Your task to perform on an android device: open chrome privacy settings Image 0: 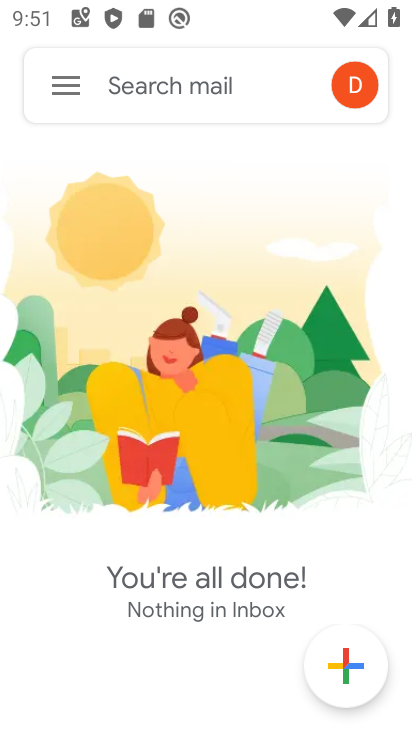
Step 0: press home button
Your task to perform on an android device: open chrome privacy settings Image 1: 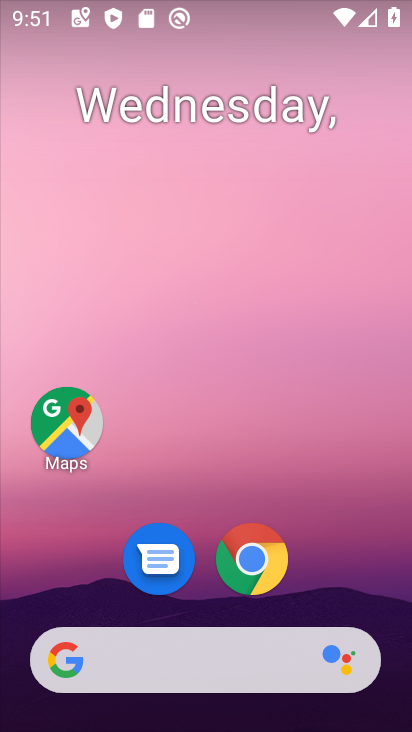
Step 1: click (238, 544)
Your task to perform on an android device: open chrome privacy settings Image 2: 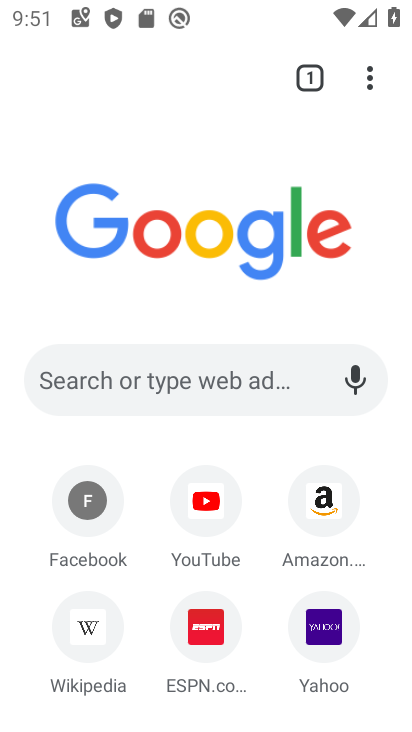
Step 2: click (373, 80)
Your task to perform on an android device: open chrome privacy settings Image 3: 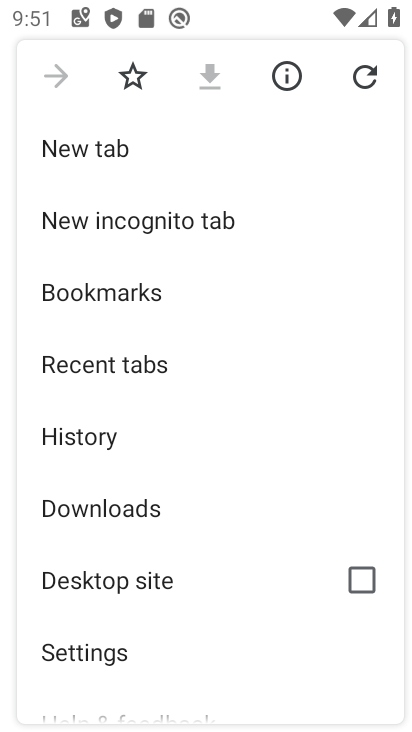
Step 3: click (142, 646)
Your task to perform on an android device: open chrome privacy settings Image 4: 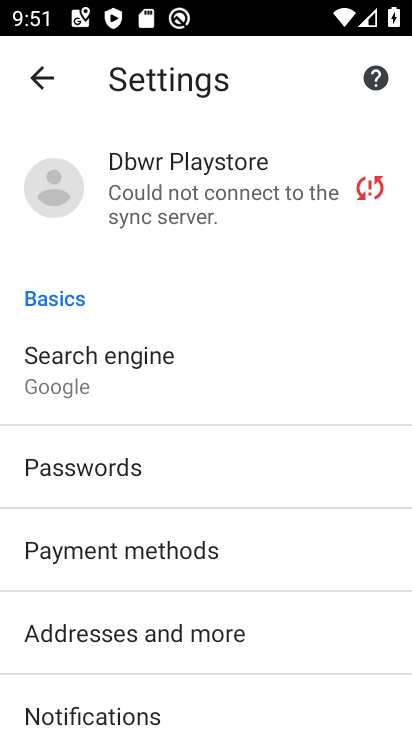
Step 4: drag from (142, 644) to (148, 404)
Your task to perform on an android device: open chrome privacy settings Image 5: 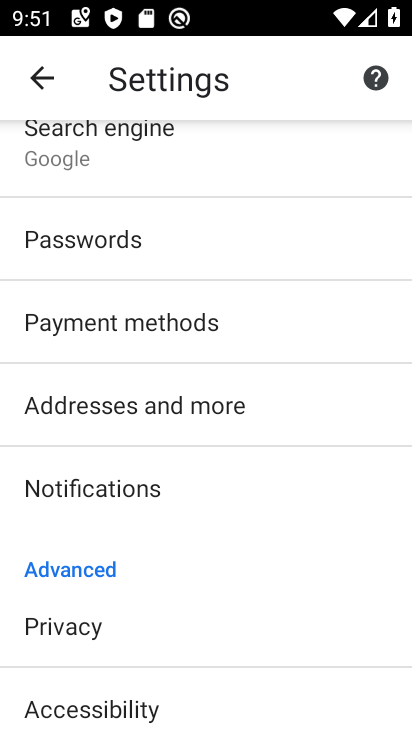
Step 5: click (120, 617)
Your task to perform on an android device: open chrome privacy settings Image 6: 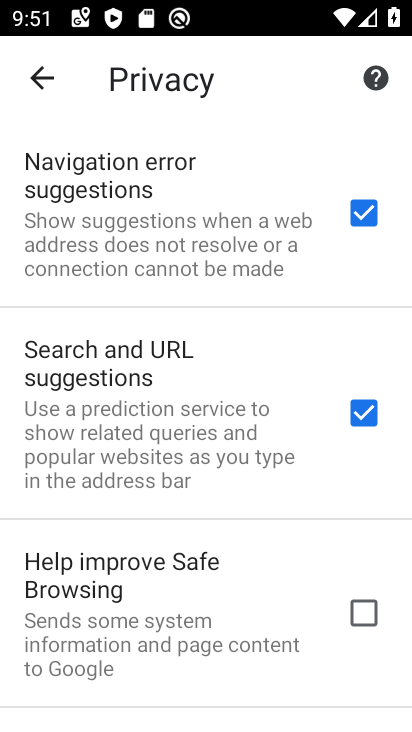
Step 6: task complete